Your task to perform on an android device: turn pop-ups on in chrome Image 0: 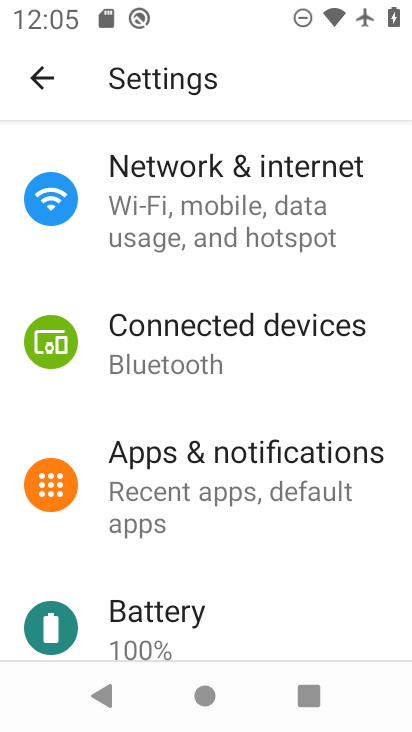
Step 0: press back button
Your task to perform on an android device: turn pop-ups on in chrome Image 1: 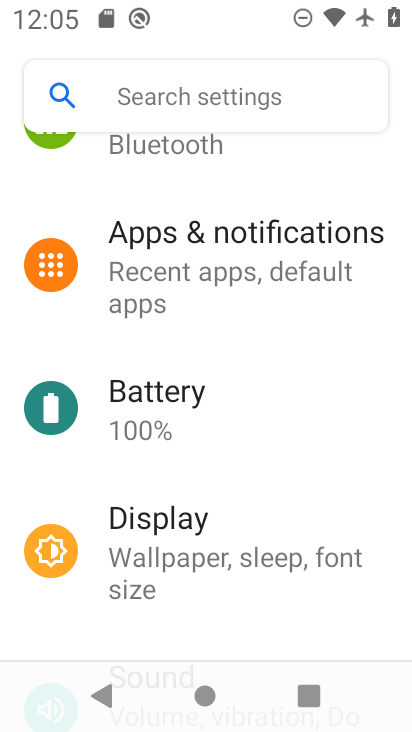
Step 1: press home button
Your task to perform on an android device: turn pop-ups on in chrome Image 2: 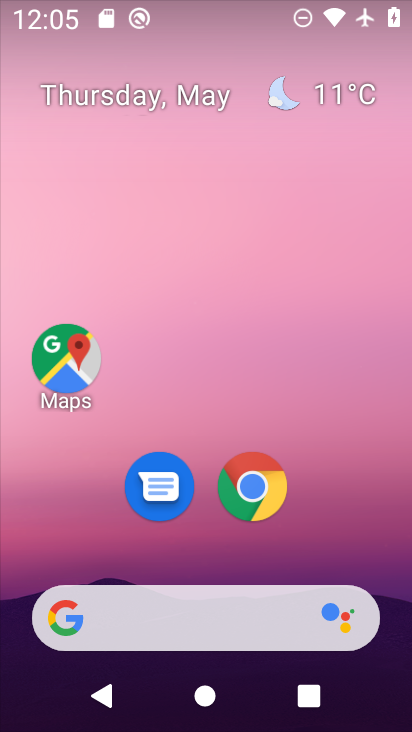
Step 2: drag from (333, 532) to (243, 2)
Your task to perform on an android device: turn pop-ups on in chrome Image 3: 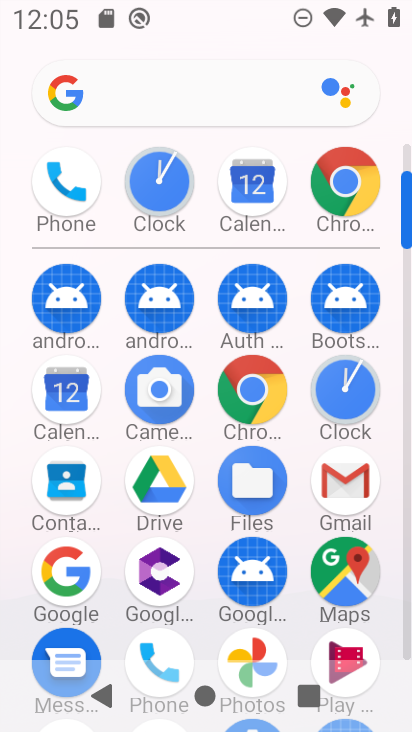
Step 3: click (252, 384)
Your task to perform on an android device: turn pop-ups on in chrome Image 4: 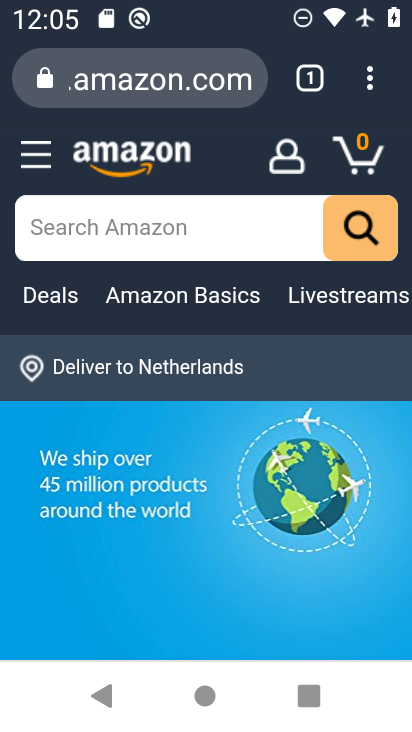
Step 4: drag from (369, 82) to (87, 529)
Your task to perform on an android device: turn pop-ups on in chrome Image 5: 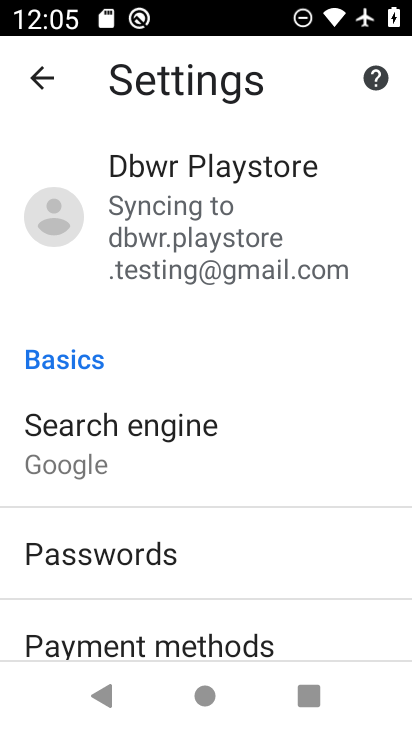
Step 5: drag from (205, 519) to (249, 166)
Your task to perform on an android device: turn pop-ups on in chrome Image 6: 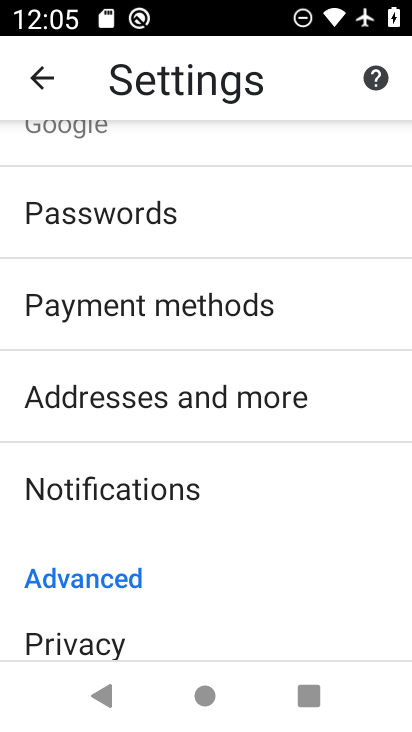
Step 6: drag from (278, 536) to (285, 165)
Your task to perform on an android device: turn pop-ups on in chrome Image 7: 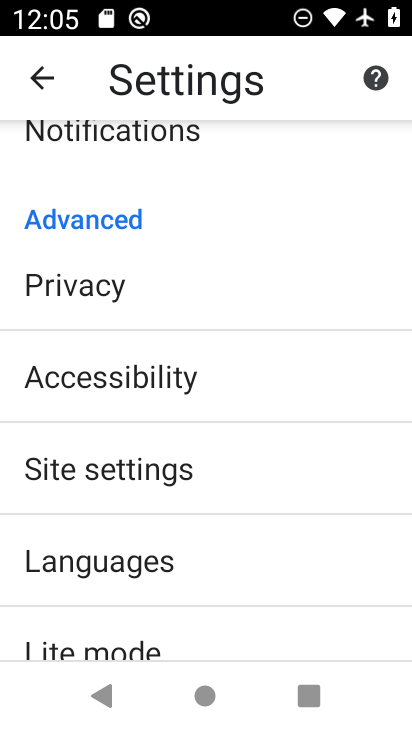
Step 7: drag from (236, 563) to (309, 243)
Your task to perform on an android device: turn pop-ups on in chrome Image 8: 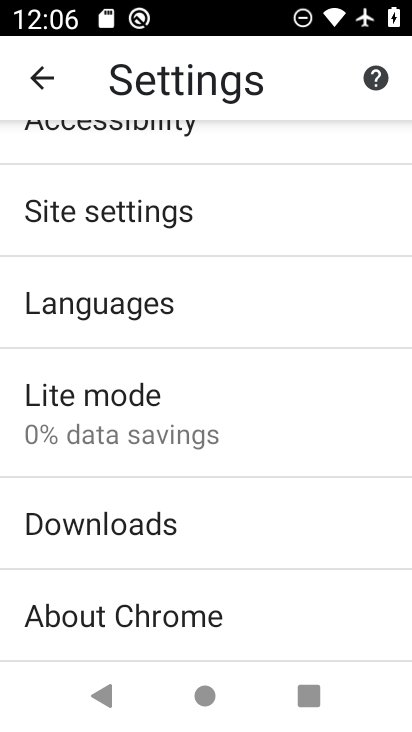
Step 8: drag from (265, 147) to (249, 486)
Your task to perform on an android device: turn pop-ups on in chrome Image 9: 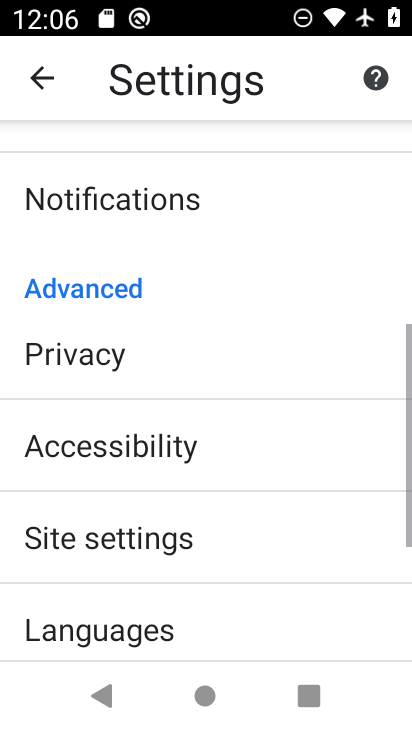
Step 9: drag from (222, 510) to (259, 176)
Your task to perform on an android device: turn pop-ups on in chrome Image 10: 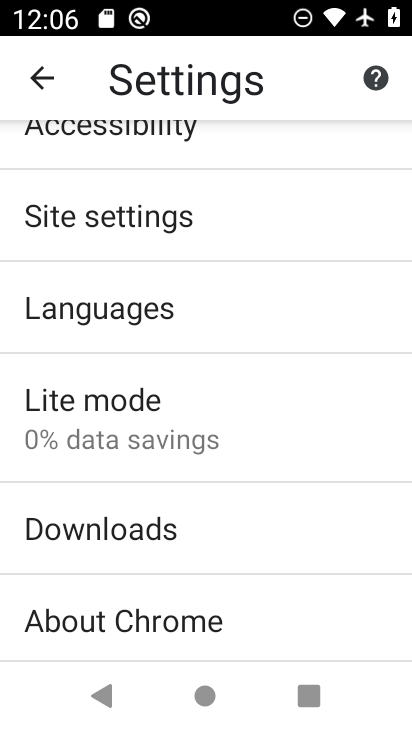
Step 10: drag from (284, 491) to (283, 158)
Your task to perform on an android device: turn pop-ups on in chrome Image 11: 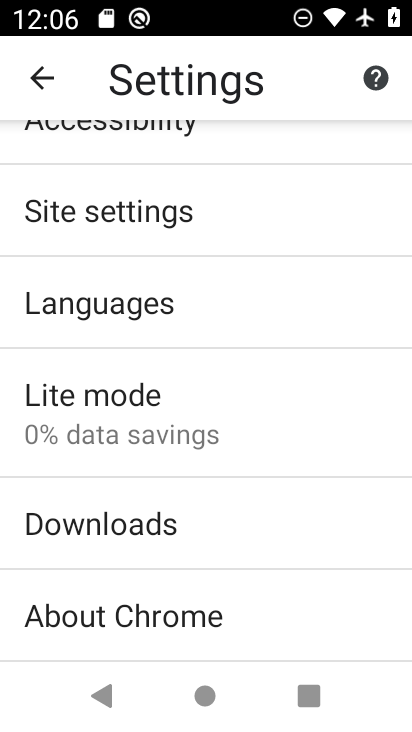
Step 11: drag from (255, 202) to (237, 584)
Your task to perform on an android device: turn pop-ups on in chrome Image 12: 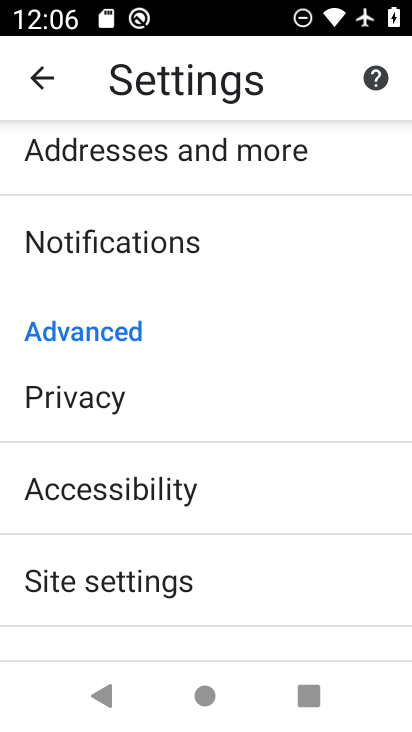
Step 12: drag from (231, 258) to (238, 590)
Your task to perform on an android device: turn pop-ups on in chrome Image 13: 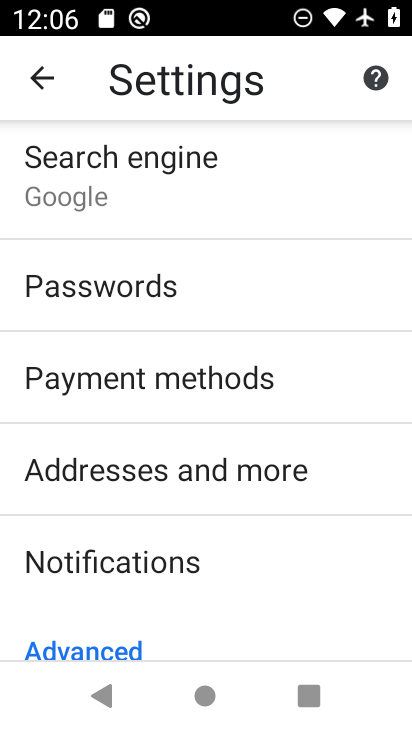
Step 13: drag from (242, 247) to (284, 194)
Your task to perform on an android device: turn pop-ups on in chrome Image 14: 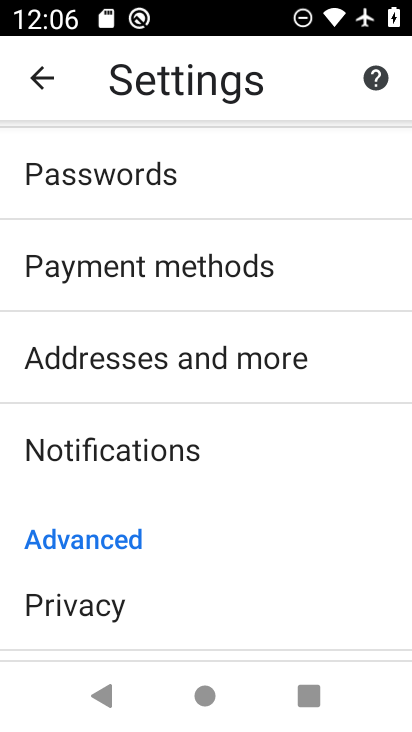
Step 14: drag from (249, 523) to (271, 163)
Your task to perform on an android device: turn pop-ups on in chrome Image 15: 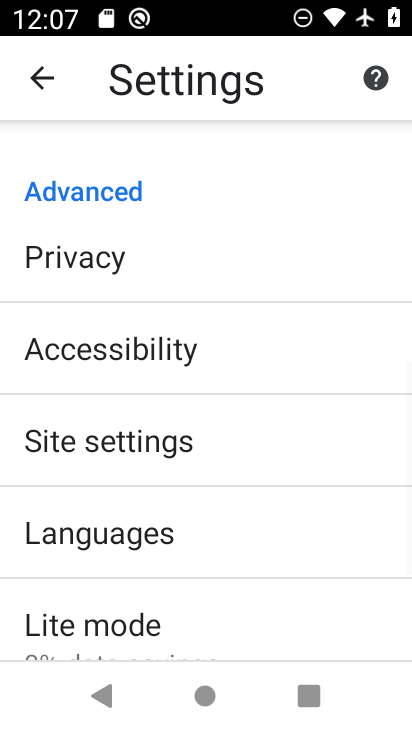
Step 15: drag from (235, 532) to (276, 207)
Your task to perform on an android device: turn pop-ups on in chrome Image 16: 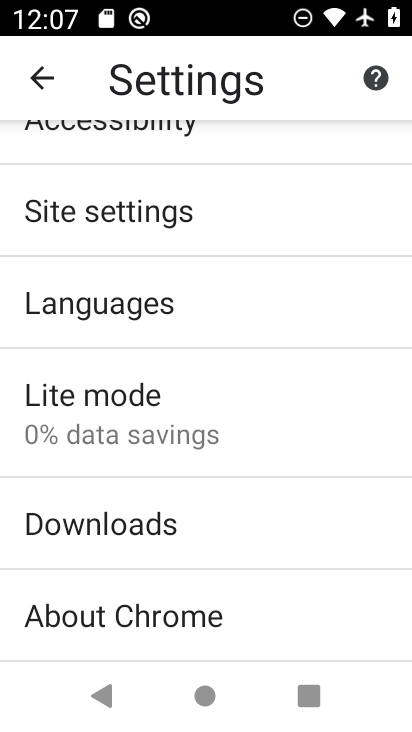
Step 16: drag from (232, 586) to (276, 242)
Your task to perform on an android device: turn pop-ups on in chrome Image 17: 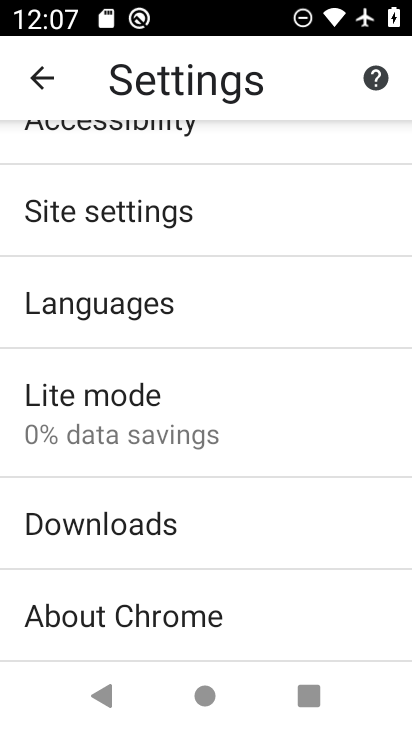
Step 17: click (231, 207)
Your task to perform on an android device: turn pop-ups on in chrome Image 18: 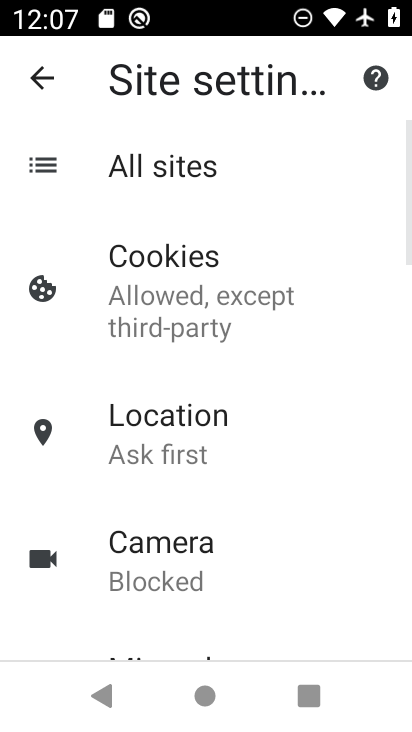
Step 18: drag from (235, 617) to (257, 186)
Your task to perform on an android device: turn pop-ups on in chrome Image 19: 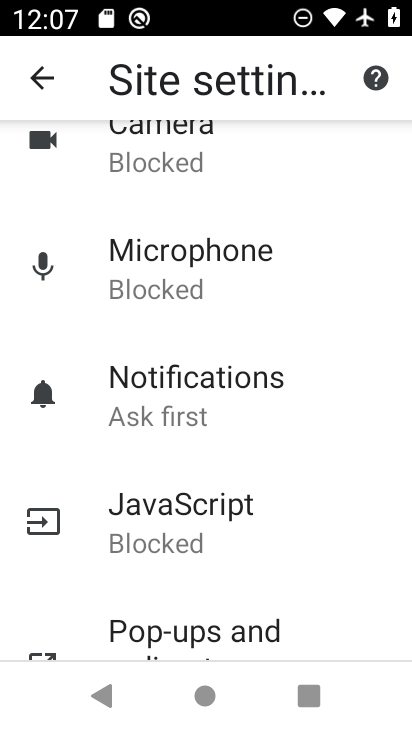
Step 19: click (219, 602)
Your task to perform on an android device: turn pop-ups on in chrome Image 20: 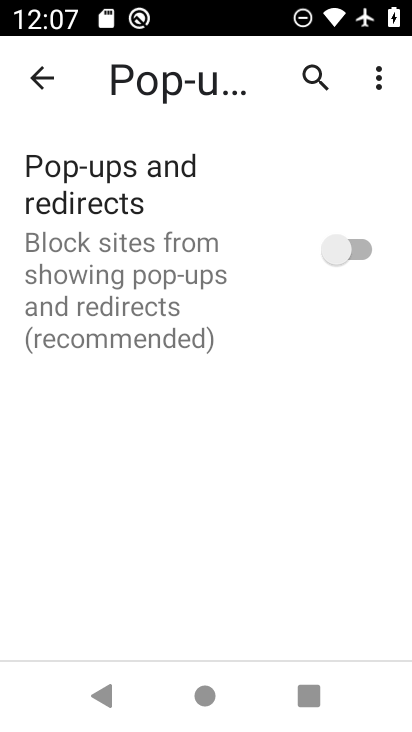
Step 20: click (350, 229)
Your task to perform on an android device: turn pop-ups on in chrome Image 21: 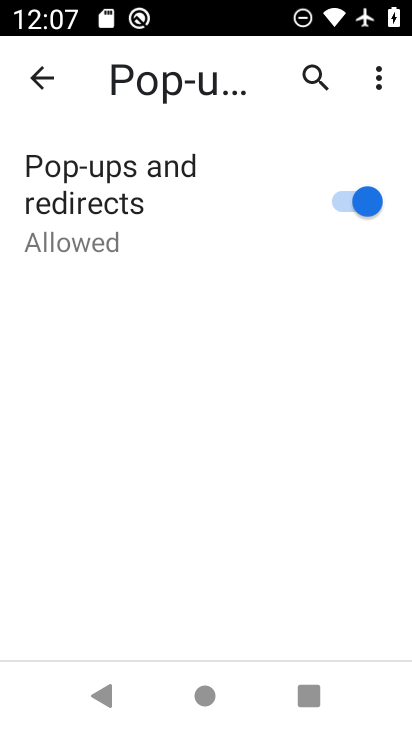
Step 21: task complete